Your task to perform on an android device: Show me popular games on the Play Store Image 0: 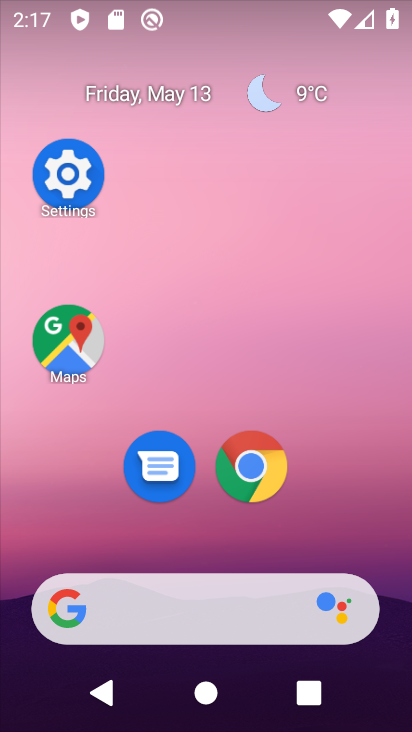
Step 0: drag from (298, 544) to (259, 113)
Your task to perform on an android device: Show me popular games on the Play Store Image 1: 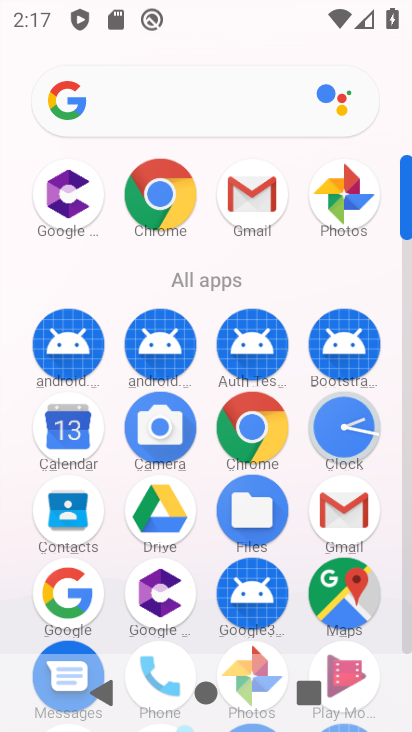
Step 1: drag from (261, 579) to (239, 149)
Your task to perform on an android device: Show me popular games on the Play Store Image 2: 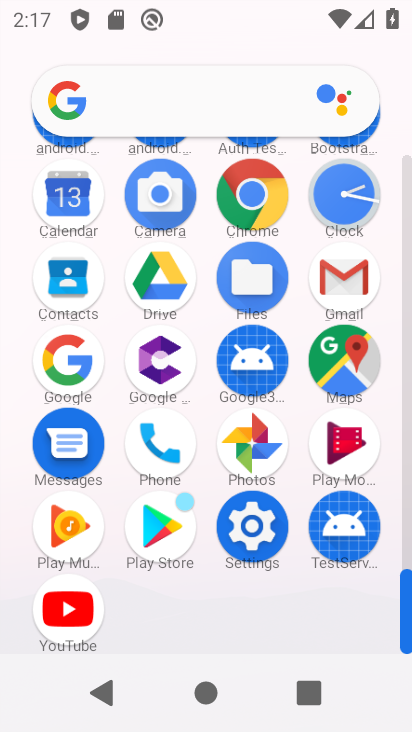
Step 2: click (156, 524)
Your task to perform on an android device: Show me popular games on the Play Store Image 3: 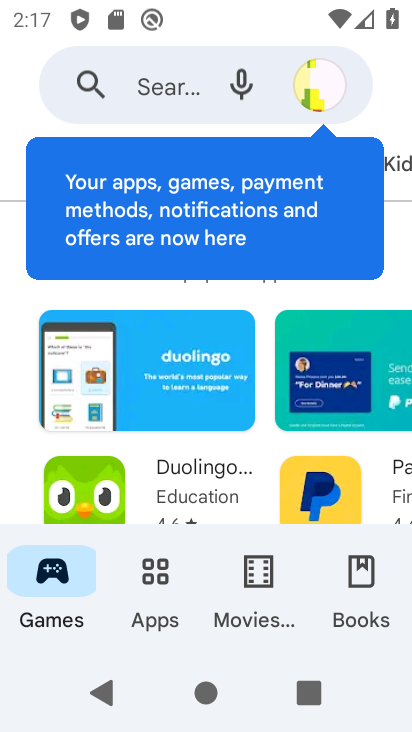
Step 3: drag from (200, 462) to (239, 71)
Your task to perform on an android device: Show me popular games on the Play Store Image 4: 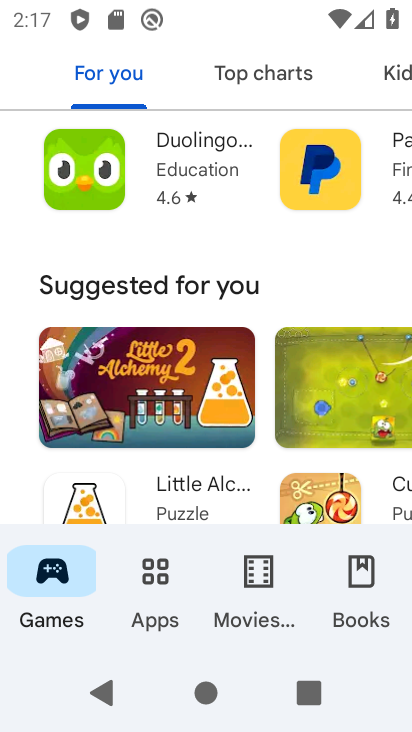
Step 4: drag from (231, 443) to (262, 116)
Your task to perform on an android device: Show me popular games on the Play Store Image 5: 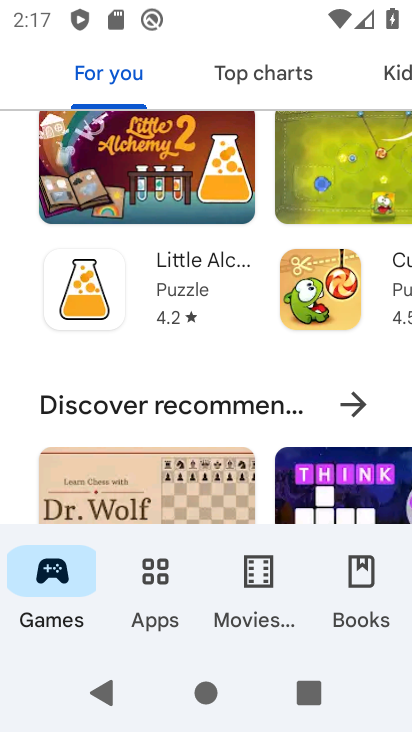
Step 5: drag from (240, 442) to (243, 76)
Your task to perform on an android device: Show me popular games on the Play Store Image 6: 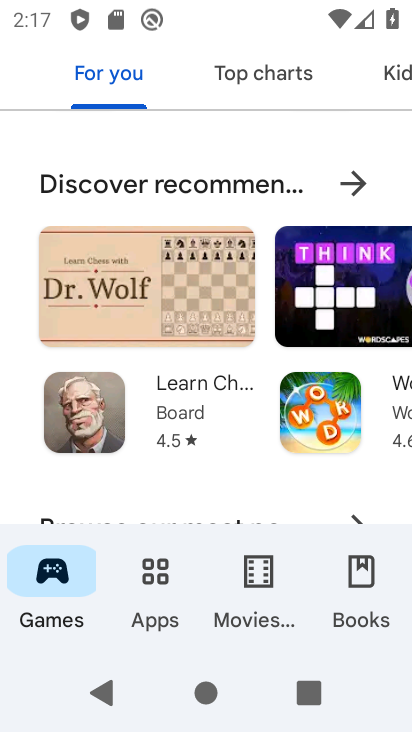
Step 6: drag from (201, 440) to (226, 105)
Your task to perform on an android device: Show me popular games on the Play Store Image 7: 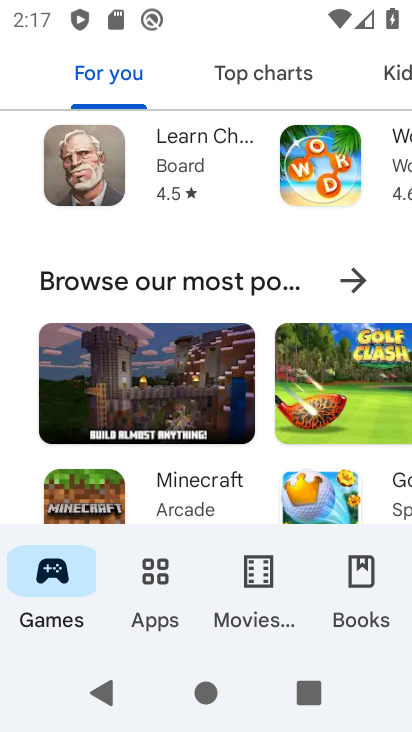
Step 7: drag from (233, 437) to (263, 226)
Your task to perform on an android device: Show me popular games on the Play Store Image 8: 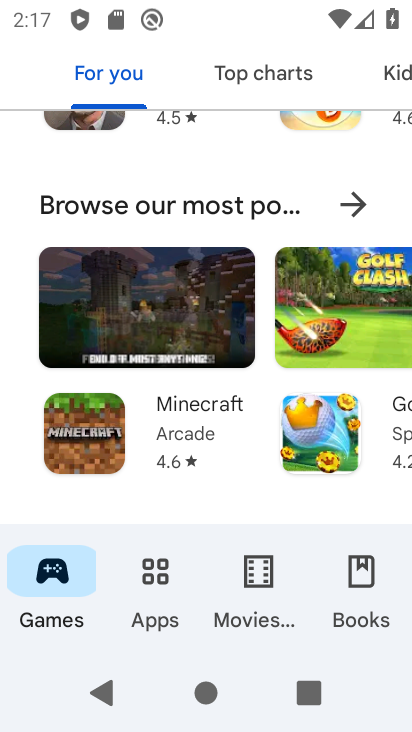
Step 8: click (285, 203)
Your task to perform on an android device: Show me popular games on the Play Store Image 9: 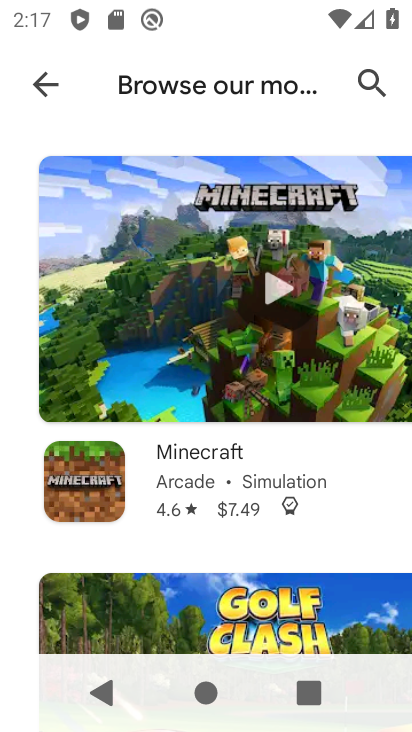
Step 9: task complete